Your task to perform on an android device: Open Chrome and go to settings Image 0: 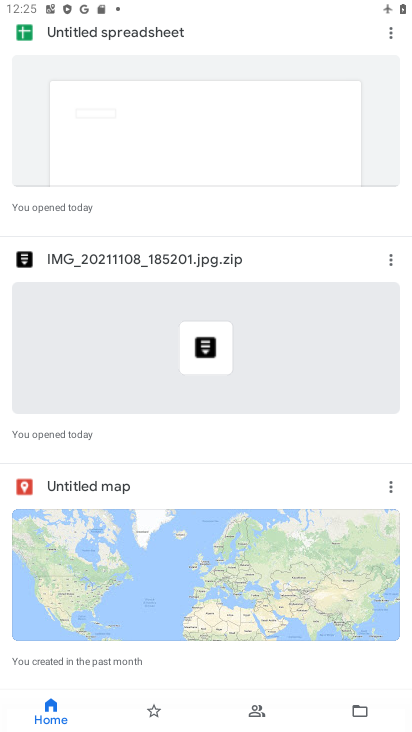
Step 0: press home button
Your task to perform on an android device: Open Chrome and go to settings Image 1: 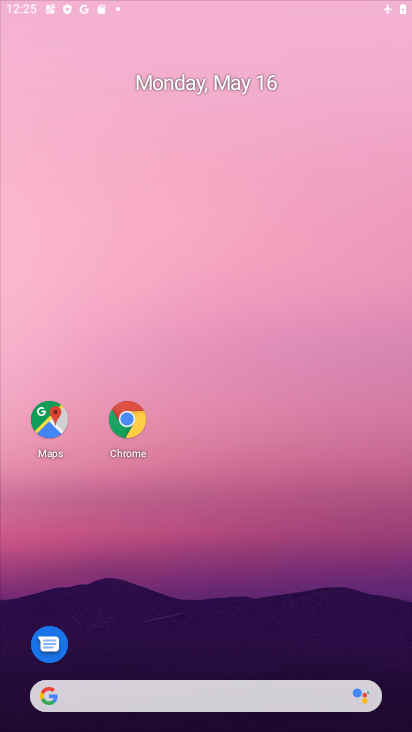
Step 1: drag from (205, 643) to (367, 82)
Your task to perform on an android device: Open Chrome and go to settings Image 2: 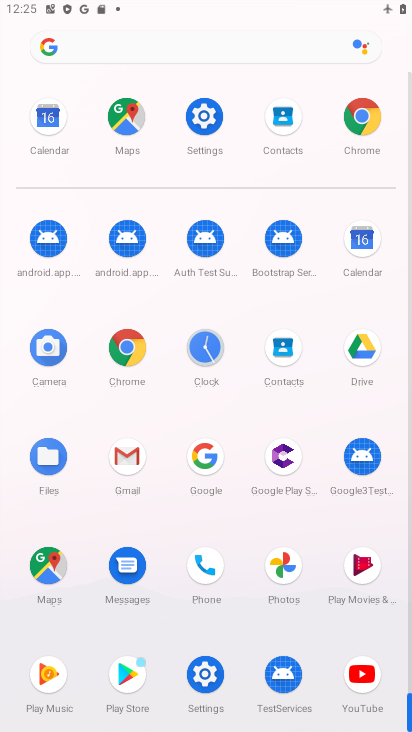
Step 2: click (191, 108)
Your task to perform on an android device: Open Chrome and go to settings Image 3: 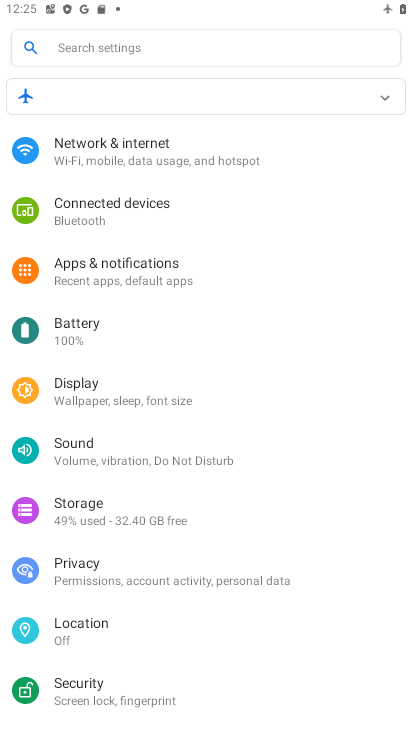
Step 3: drag from (221, 482) to (294, 164)
Your task to perform on an android device: Open Chrome and go to settings Image 4: 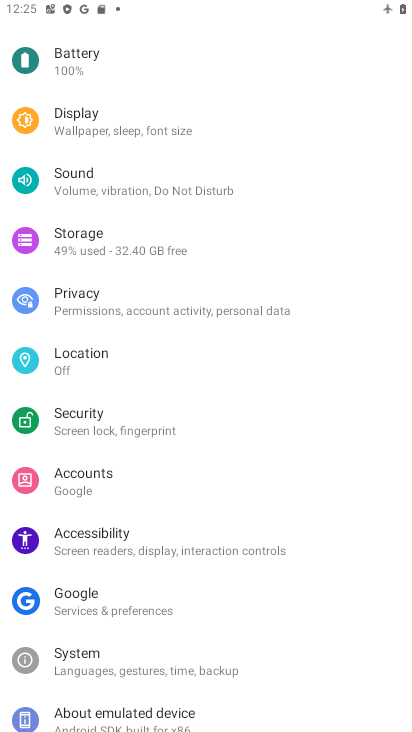
Step 4: press home button
Your task to perform on an android device: Open Chrome and go to settings Image 5: 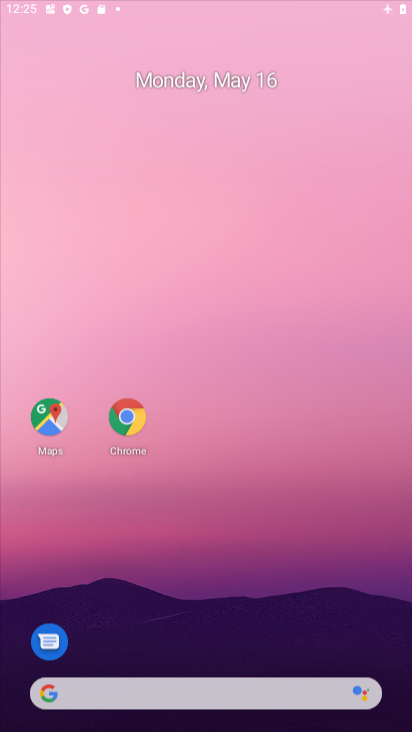
Step 5: drag from (274, 672) to (314, 221)
Your task to perform on an android device: Open Chrome and go to settings Image 6: 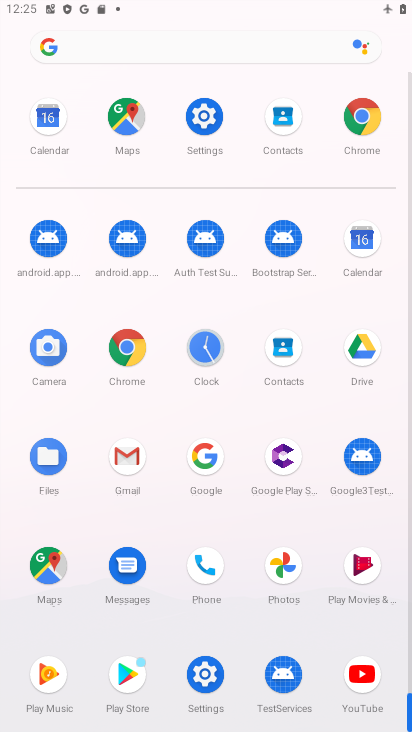
Step 6: click (362, 112)
Your task to perform on an android device: Open Chrome and go to settings Image 7: 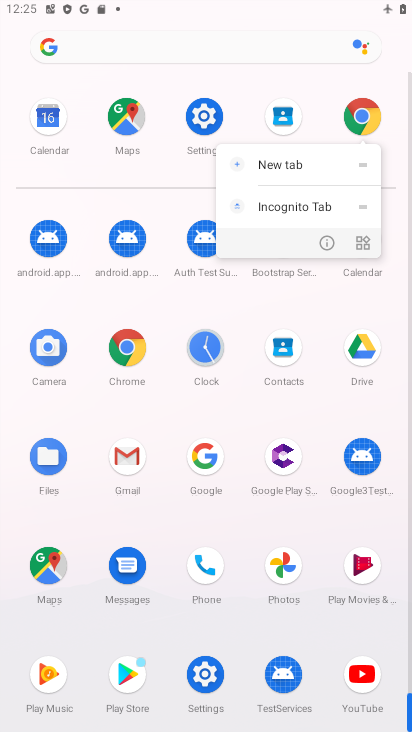
Step 7: click (328, 236)
Your task to perform on an android device: Open Chrome and go to settings Image 8: 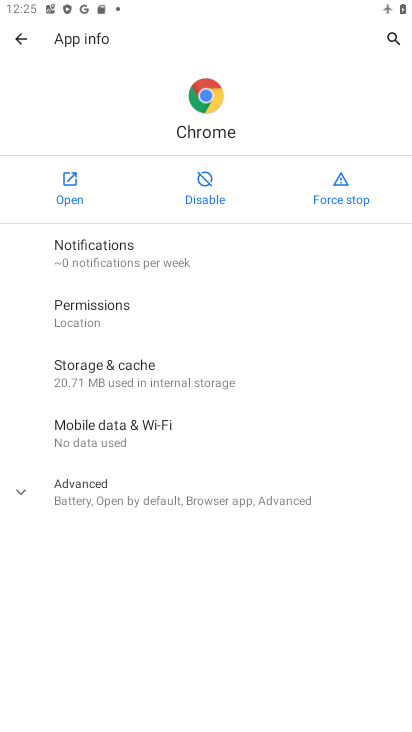
Step 8: click (70, 195)
Your task to perform on an android device: Open Chrome and go to settings Image 9: 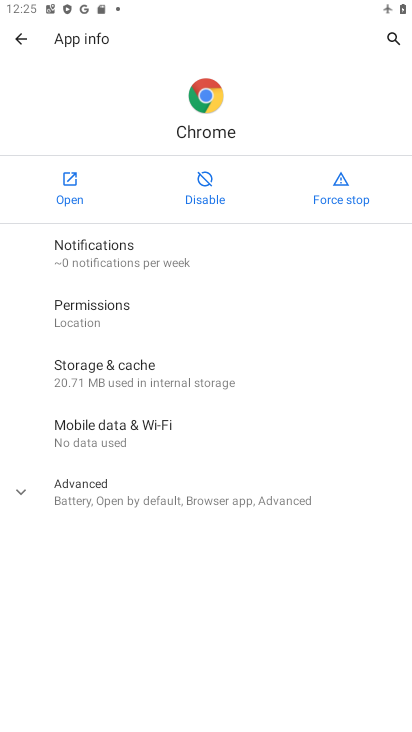
Step 9: click (70, 195)
Your task to perform on an android device: Open Chrome and go to settings Image 10: 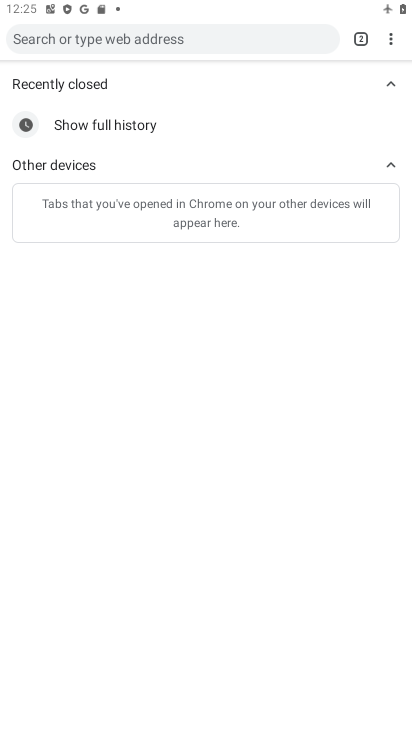
Step 10: task complete